Your task to perform on an android device: turn off sleep mode Image 0: 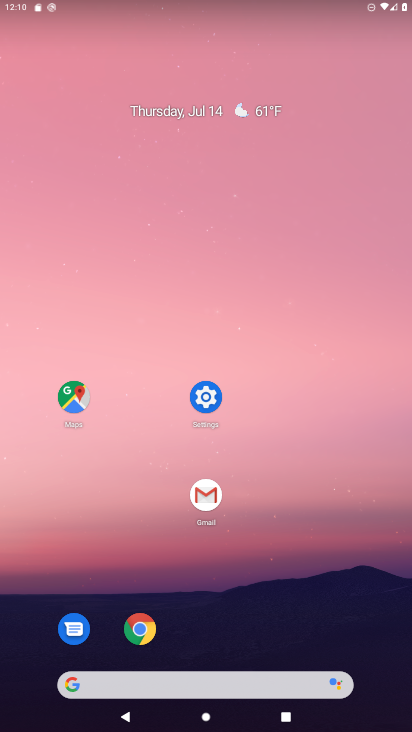
Step 0: click (209, 395)
Your task to perform on an android device: turn off sleep mode Image 1: 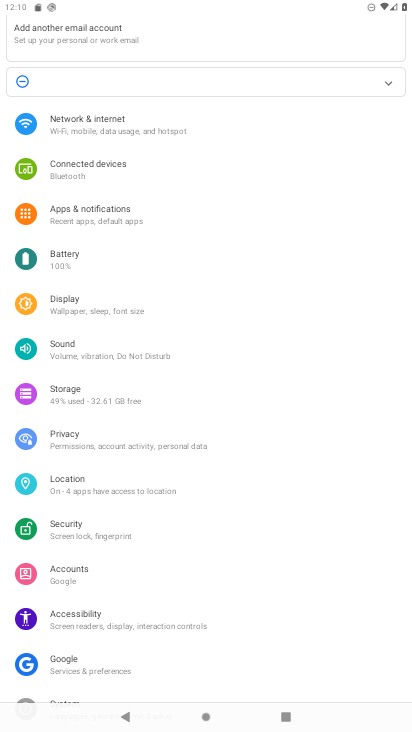
Step 1: click (62, 298)
Your task to perform on an android device: turn off sleep mode Image 2: 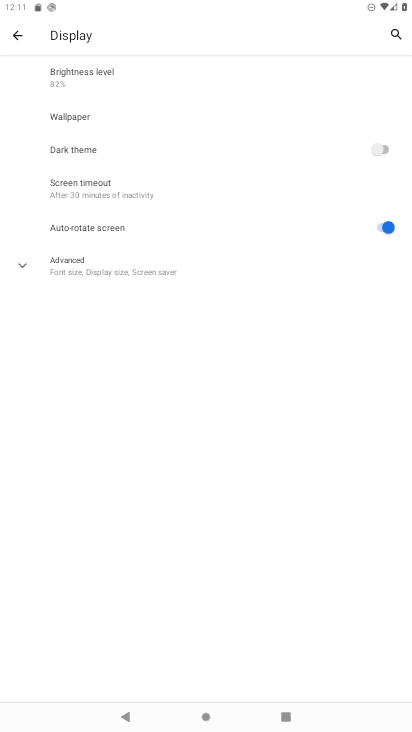
Step 2: click (124, 188)
Your task to perform on an android device: turn off sleep mode Image 3: 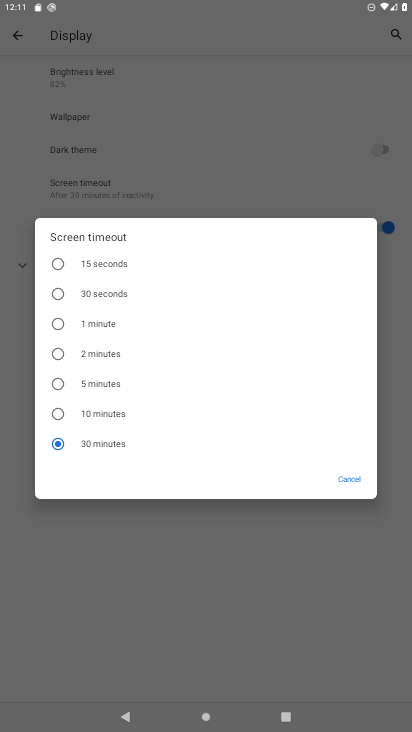
Step 3: task complete